Your task to perform on an android device: Go to Yahoo.com Image 0: 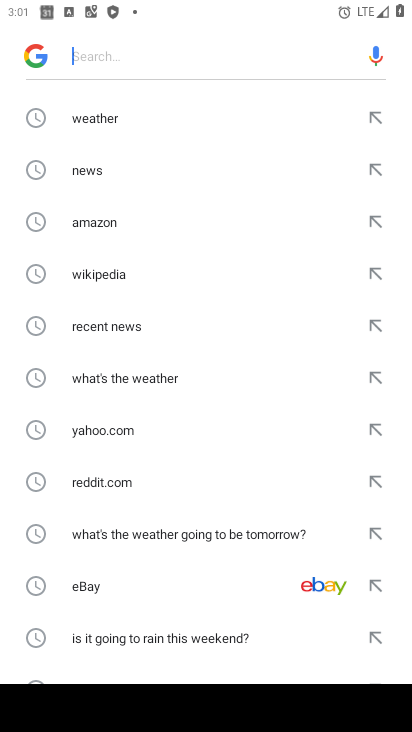
Step 0: click (107, 48)
Your task to perform on an android device: Go to Yahoo.com Image 1: 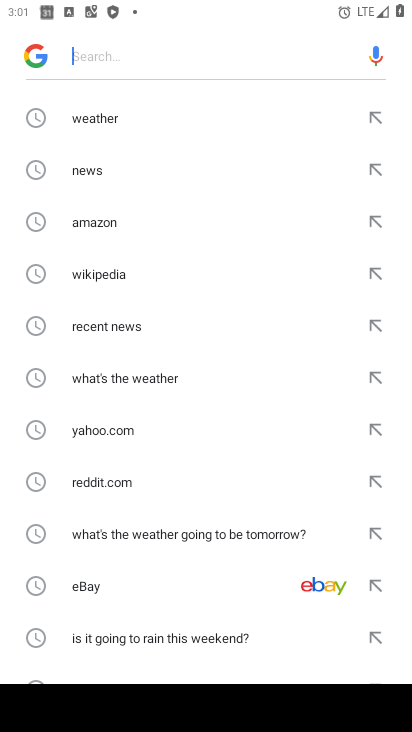
Step 1: type "yahoo.com"
Your task to perform on an android device: Go to Yahoo.com Image 2: 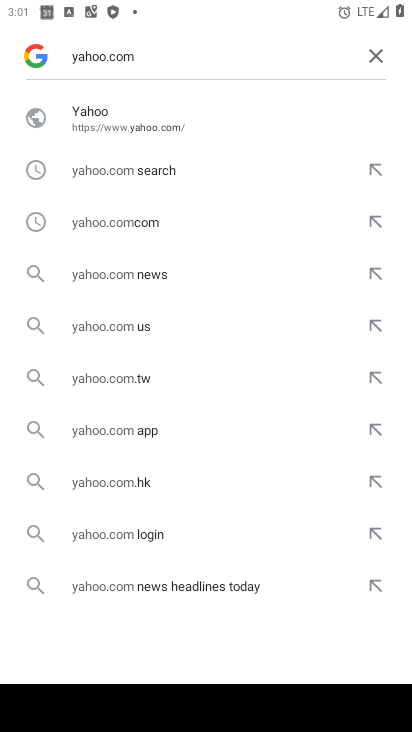
Step 2: click (95, 123)
Your task to perform on an android device: Go to Yahoo.com Image 3: 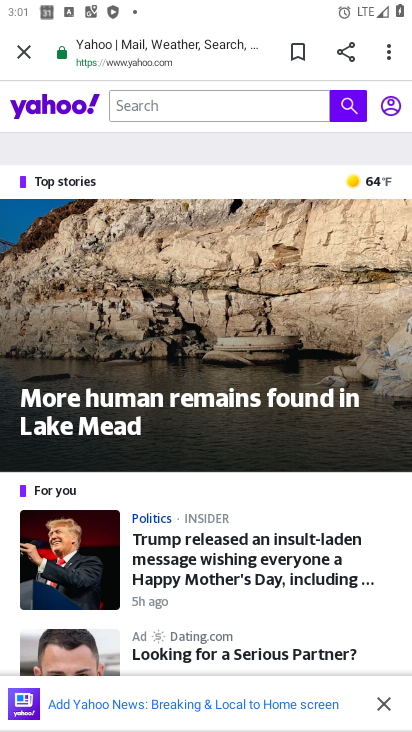
Step 3: task complete